Your task to perform on an android device: open a new tab in the chrome app Image 0: 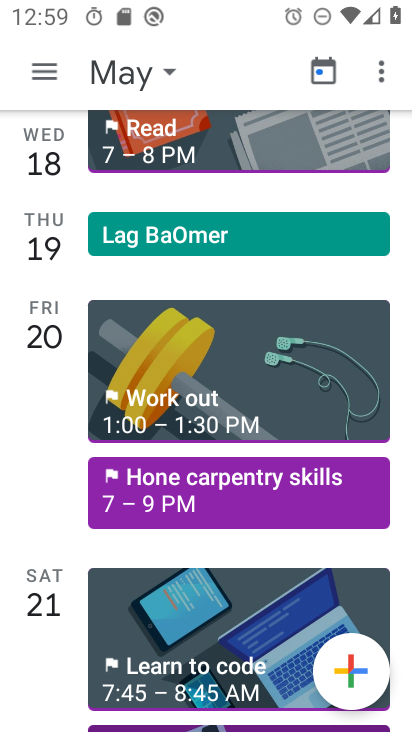
Step 0: press back button
Your task to perform on an android device: open a new tab in the chrome app Image 1: 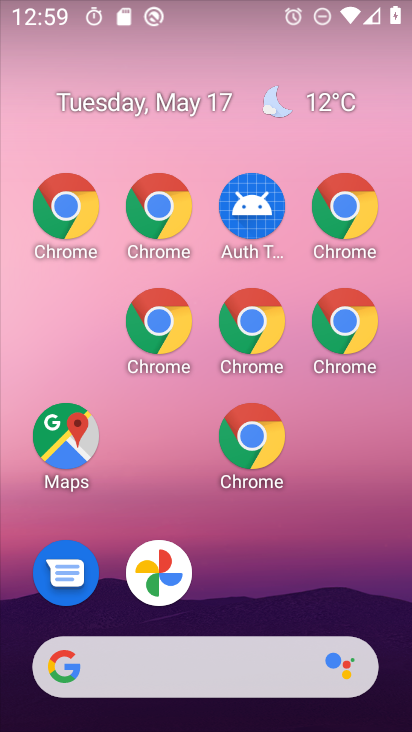
Step 1: drag from (350, 674) to (267, 145)
Your task to perform on an android device: open a new tab in the chrome app Image 2: 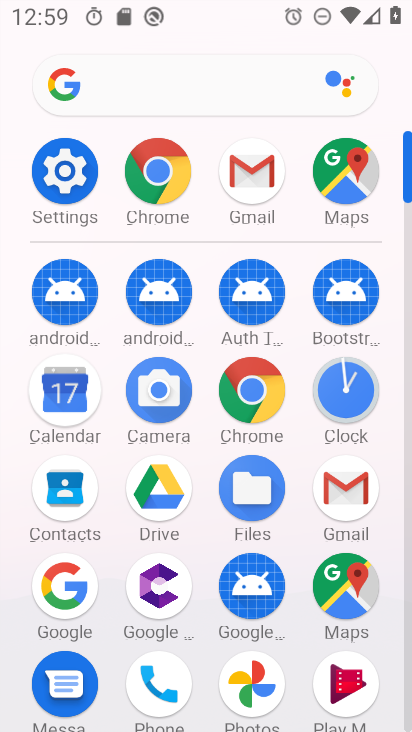
Step 2: click (158, 185)
Your task to perform on an android device: open a new tab in the chrome app Image 3: 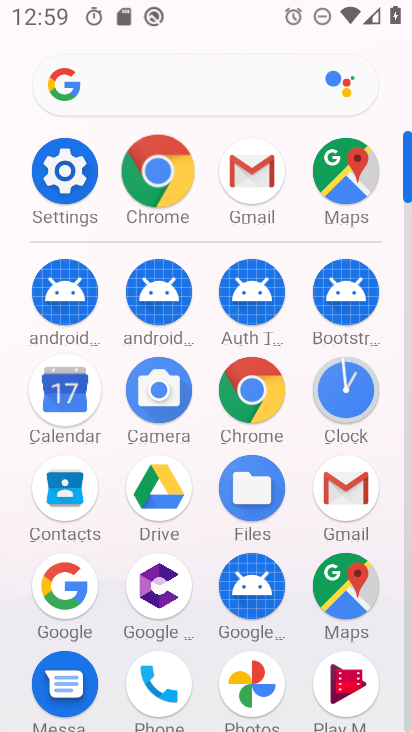
Step 3: click (171, 184)
Your task to perform on an android device: open a new tab in the chrome app Image 4: 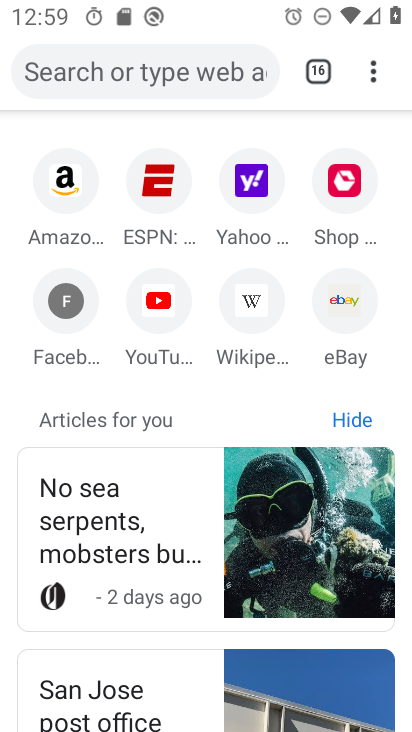
Step 4: drag from (368, 66) to (348, 453)
Your task to perform on an android device: open a new tab in the chrome app Image 5: 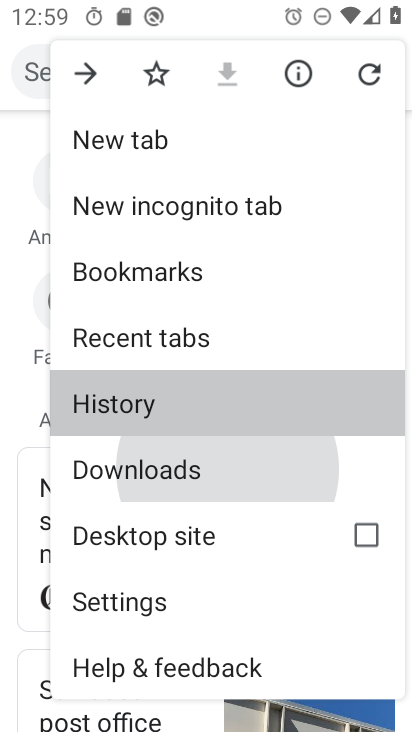
Step 5: click (368, 71)
Your task to perform on an android device: open a new tab in the chrome app Image 6: 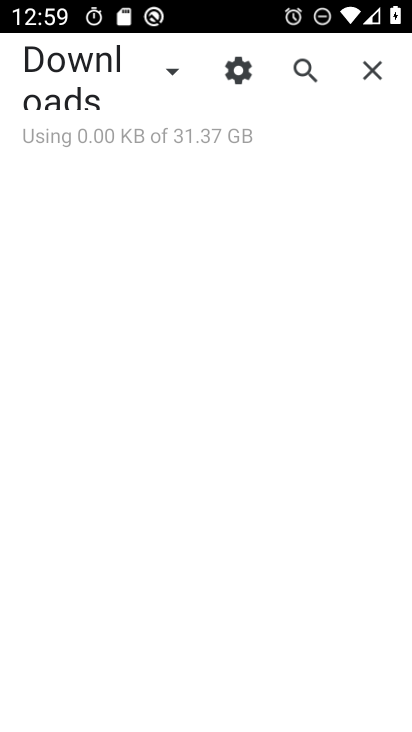
Step 6: click (369, 71)
Your task to perform on an android device: open a new tab in the chrome app Image 7: 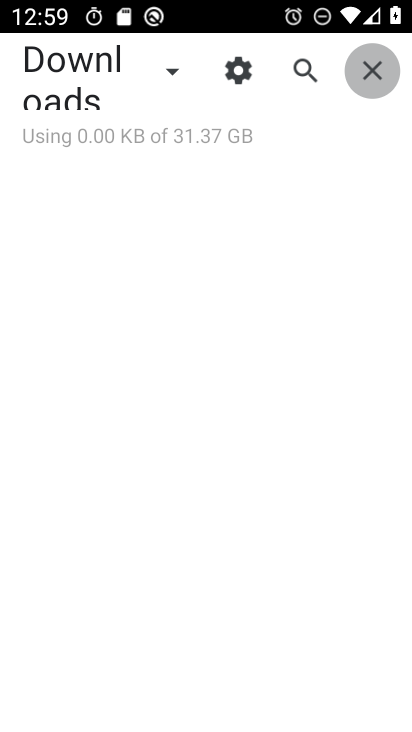
Step 7: click (371, 69)
Your task to perform on an android device: open a new tab in the chrome app Image 8: 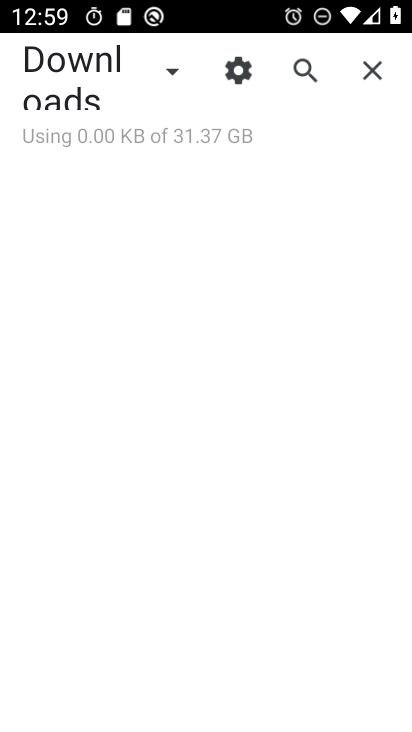
Step 8: click (371, 69)
Your task to perform on an android device: open a new tab in the chrome app Image 9: 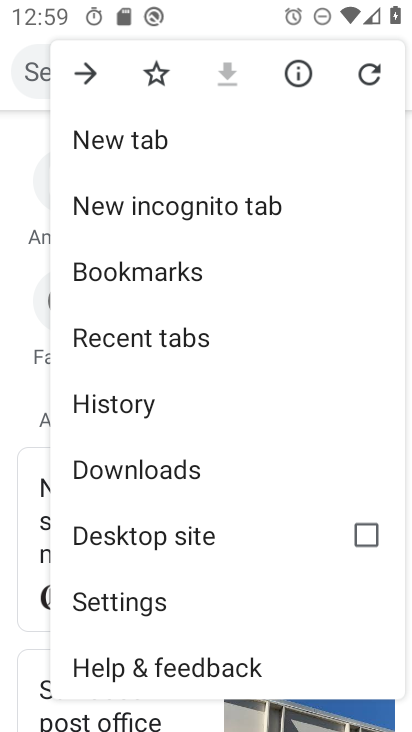
Step 9: click (135, 137)
Your task to perform on an android device: open a new tab in the chrome app Image 10: 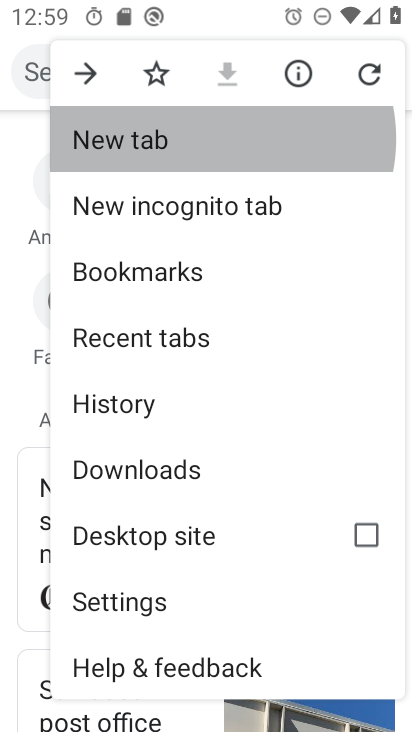
Step 10: click (135, 137)
Your task to perform on an android device: open a new tab in the chrome app Image 11: 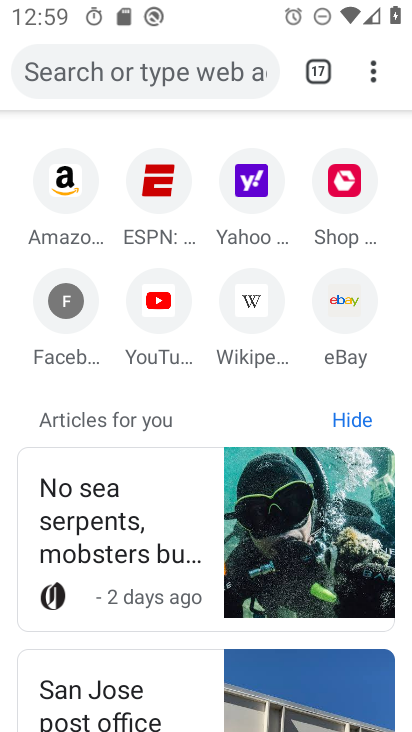
Step 11: task complete